Your task to perform on an android device: Go to eBay Image 0: 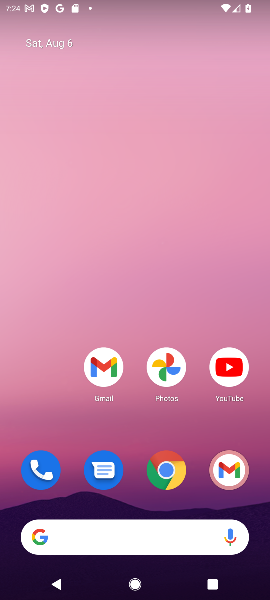
Step 0: click (171, 471)
Your task to perform on an android device: Go to eBay Image 1: 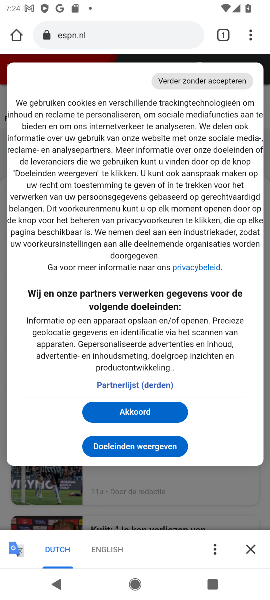
Step 1: drag from (227, 34) to (179, 249)
Your task to perform on an android device: Go to eBay Image 2: 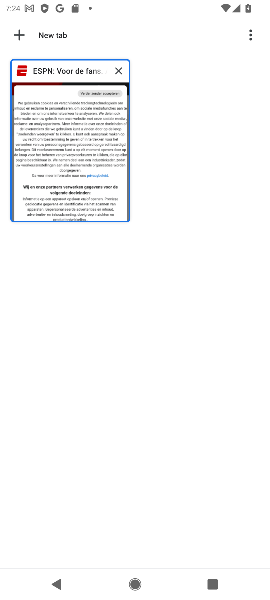
Step 2: click (15, 36)
Your task to perform on an android device: Go to eBay Image 3: 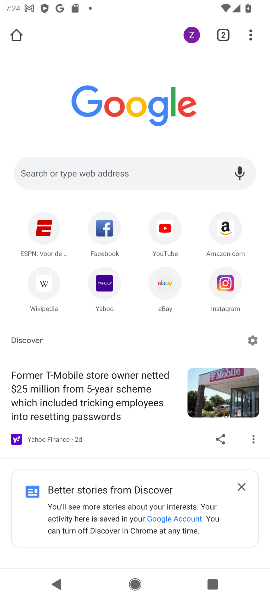
Step 3: click (167, 296)
Your task to perform on an android device: Go to eBay Image 4: 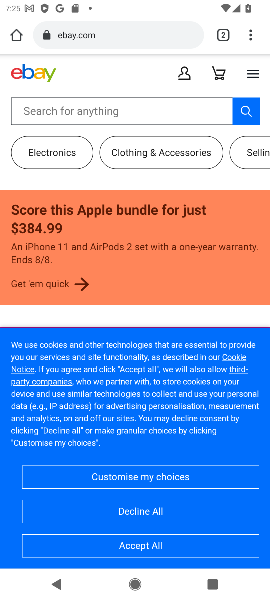
Step 4: task complete